Your task to perform on an android device: turn on data saver in the chrome app Image 0: 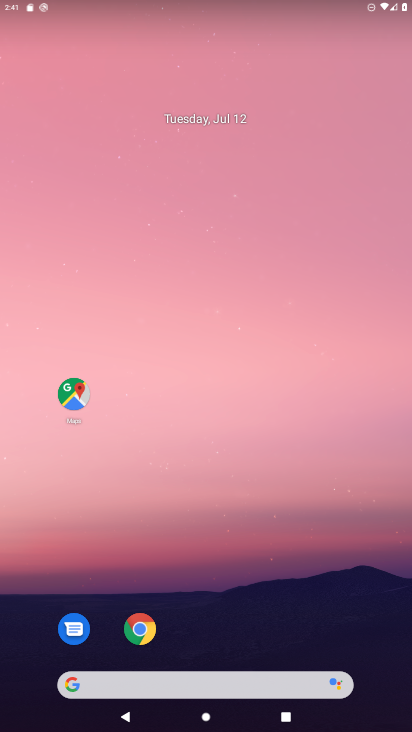
Step 0: click (142, 630)
Your task to perform on an android device: turn on data saver in the chrome app Image 1: 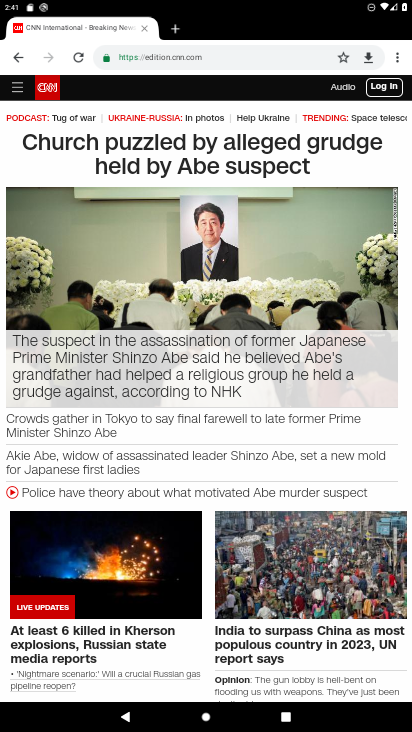
Step 1: click (398, 58)
Your task to perform on an android device: turn on data saver in the chrome app Image 2: 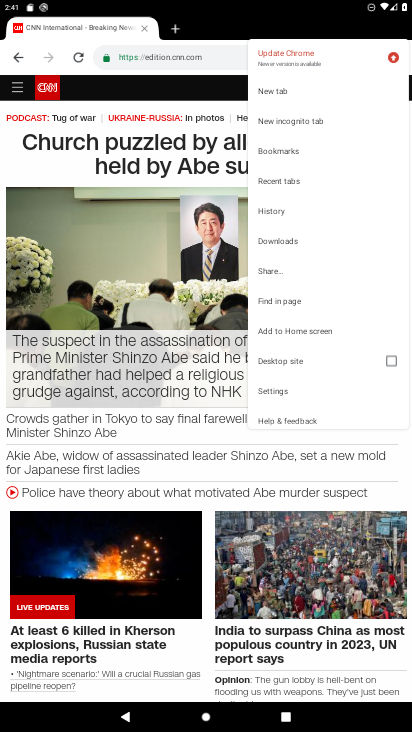
Step 2: click (276, 389)
Your task to perform on an android device: turn on data saver in the chrome app Image 3: 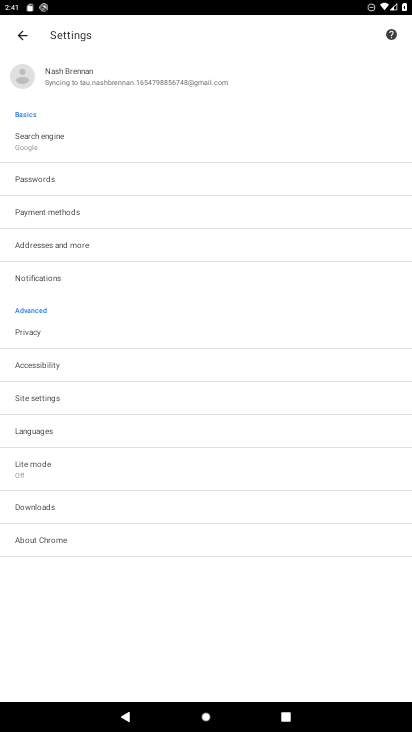
Step 3: click (29, 471)
Your task to perform on an android device: turn on data saver in the chrome app Image 4: 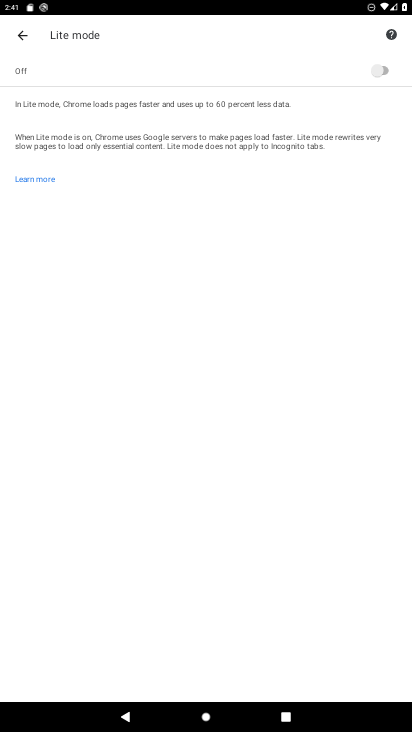
Step 4: click (382, 75)
Your task to perform on an android device: turn on data saver in the chrome app Image 5: 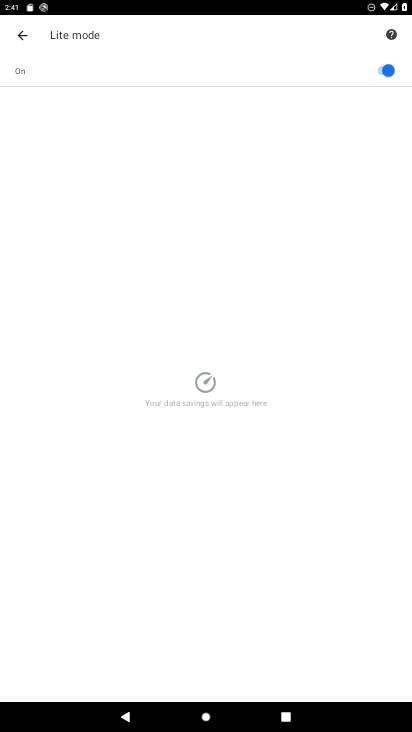
Step 5: task complete